Your task to perform on an android device: Open accessibility settings Image 0: 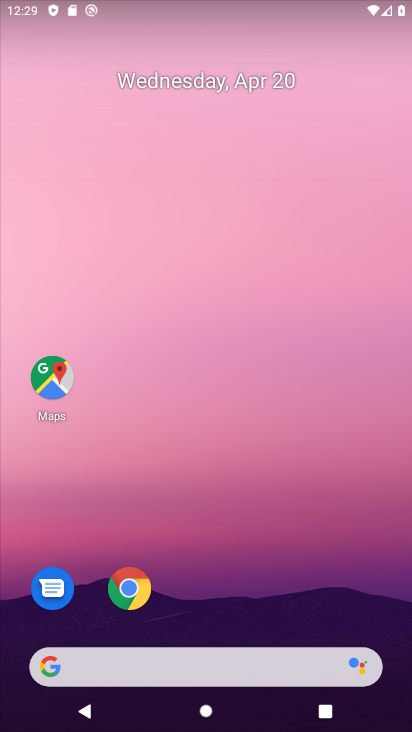
Step 0: drag from (197, 642) to (310, 162)
Your task to perform on an android device: Open accessibility settings Image 1: 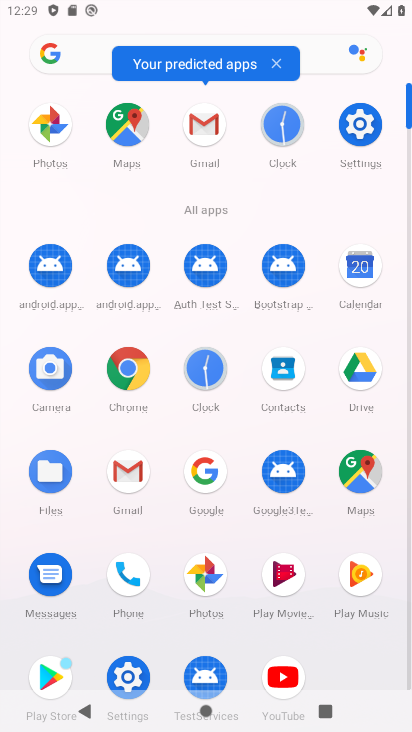
Step 1: click (367, 129)
Your task to perform on an android device: Open accessibility settings Image 2: 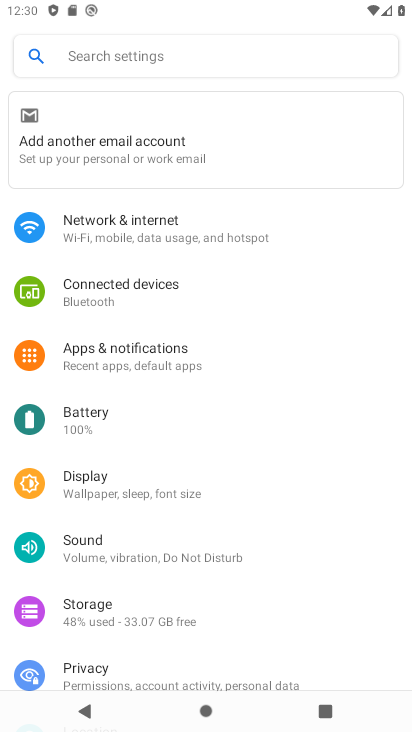
Step 2: drag from (140, 665) to (207, 240)
Your task to perform on an android device: Open accessibility settings Image 3: 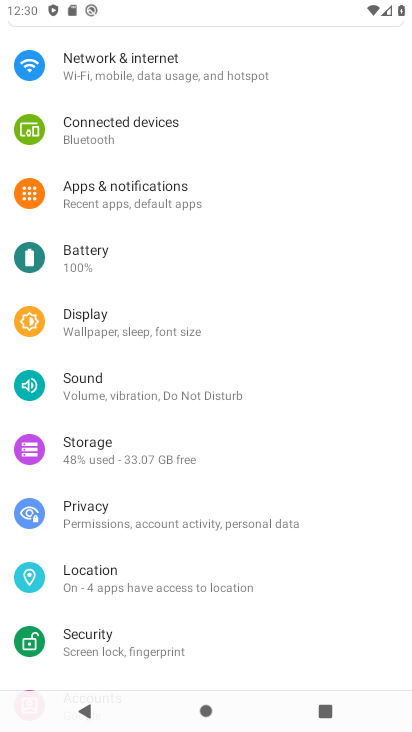
Step 3: drag from (175, 686) to (210, 368)
Your task to perform on an android device: Open accessibility settings Image 4: 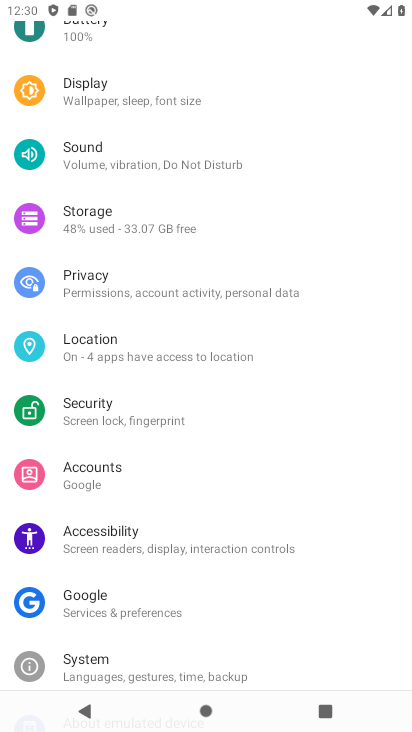
Step 4: click (115, 534)
Your task to perform on an android device: Open accessibility settings Image 5: 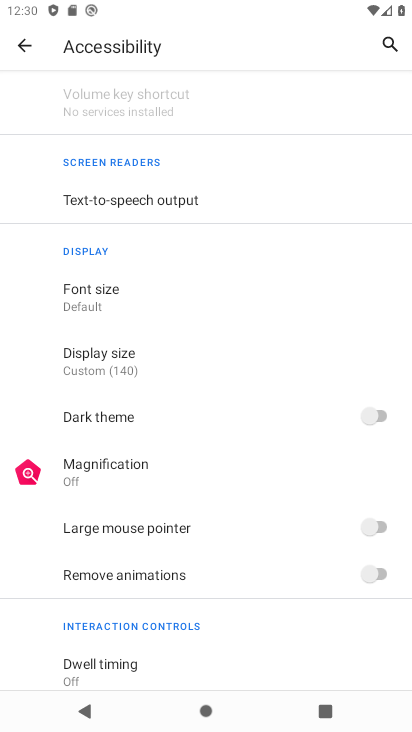
Step 5: task complete